Your task to perform on an android device: What's on my calendar today? Image 0: 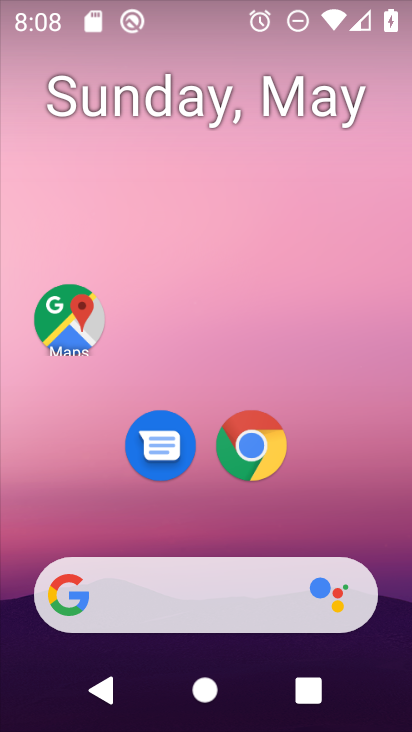
Step 0: drag from (336, 550) to (355, 64)
Your task to perform on an android device: What's on my calendar today? Image 1: 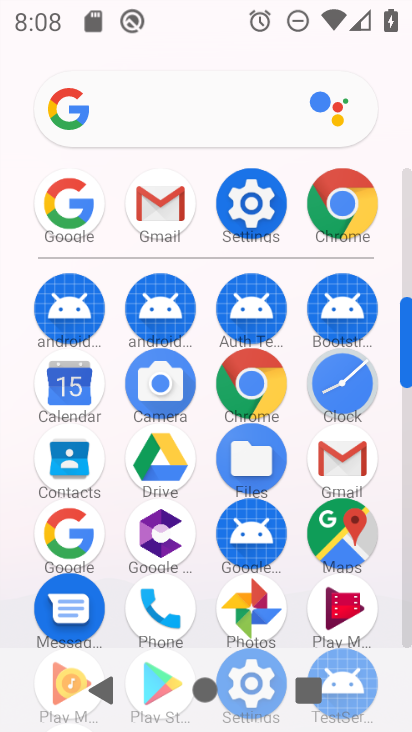
Step 1: drag from (251, 609) to (278, 163)
Your task to perform on an android device: What's on my calendar today? Image 2: 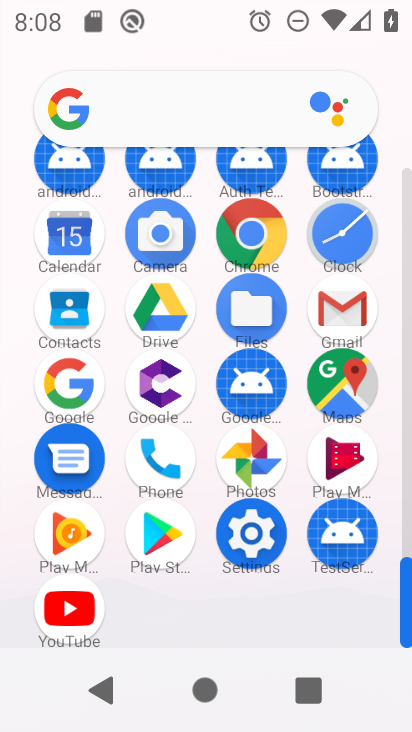
Step 2: drag from (384, 230) to (368, 503)
Your task to perform on an android device: What's on my calendar today? Image 3: 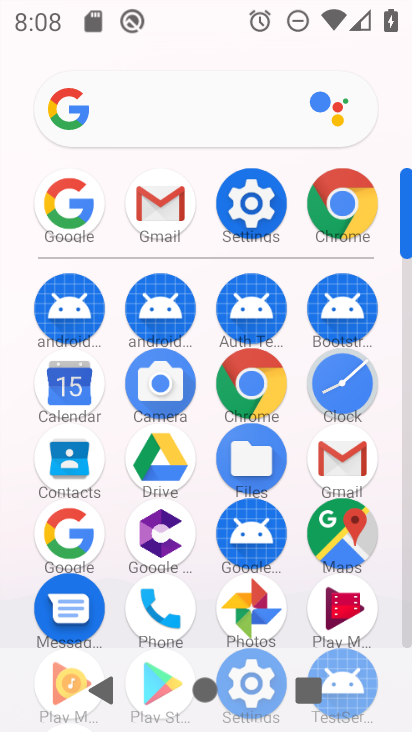
Step 3: click (53, 405)
Your task to perform on an android device: What's on my calendar today? Image 4: 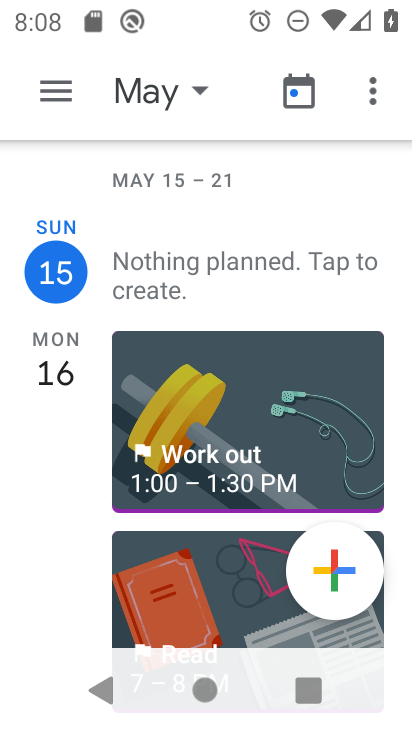
Step 4: click (49, 88)
Your task to perform on an android device: What's on my calendar today? Image 5: 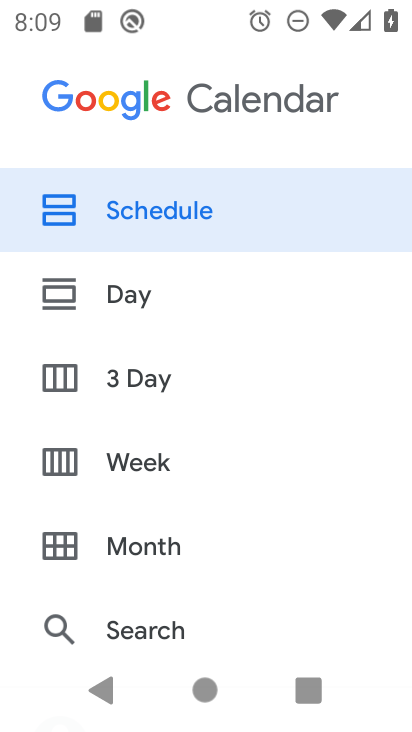
Step 5: task complete